Your task to perform on an android device: turn off airplane mode Image 0: 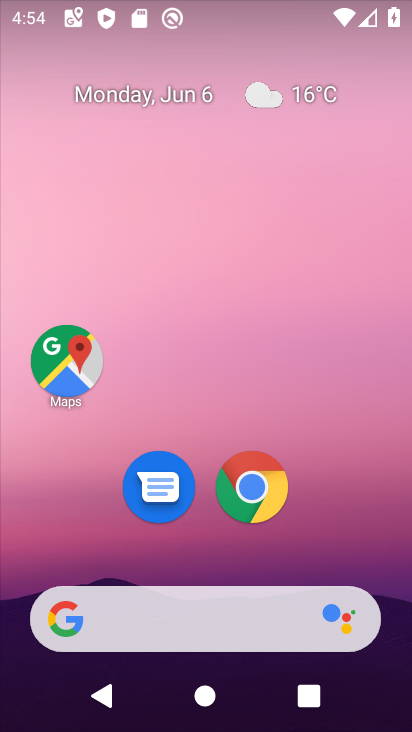
Step 0: drag from (208, 545) to (207, 85)
Your task to perform on an android device: turn off airplane mode Image 1: 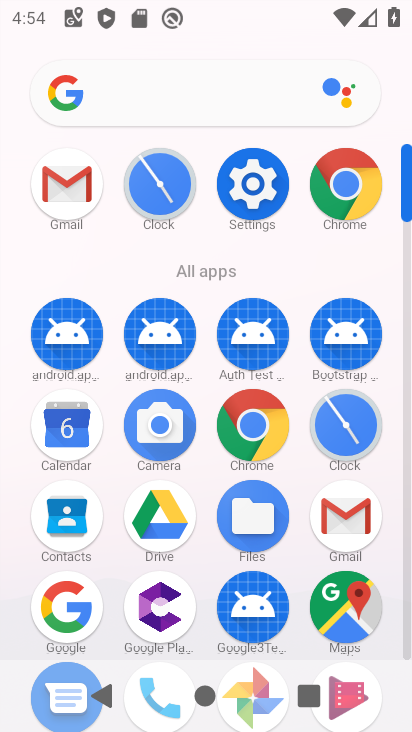
Step 1: click (250, 177)
Your task to perform on an android device: turn off airplane mode Image 2: 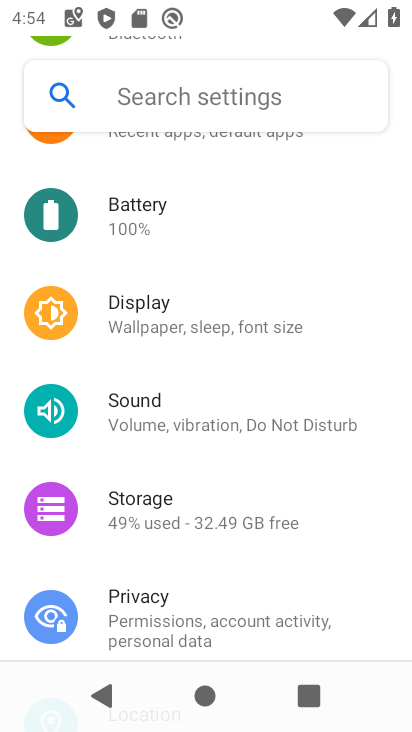
Step 2: drag from (253, 205) to (223, 716)
Your task to perform on an android device: turn off airplane mode Image 3: 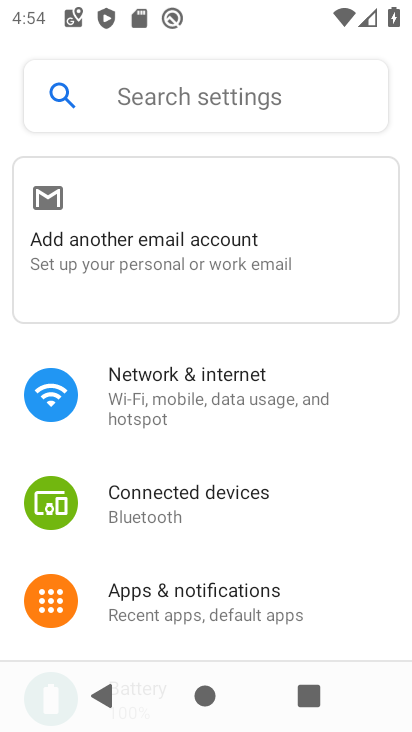
Step 3: click (260, 403)
Your task to perform on an android device: turn off airplane mode Image 4: 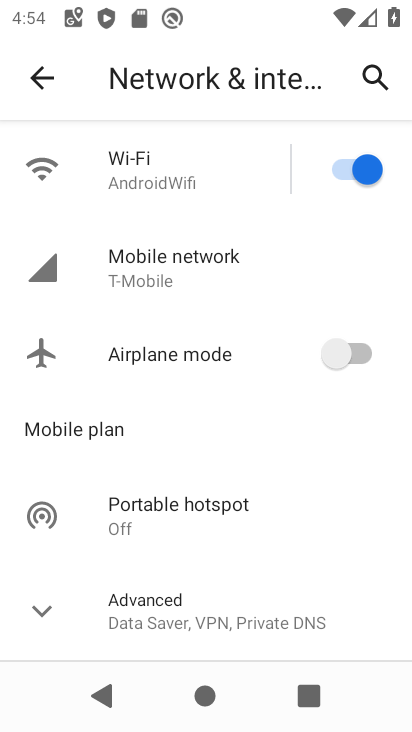
Step 4: task complete